Your task to perform on an android device: Open Amazon Image 0: 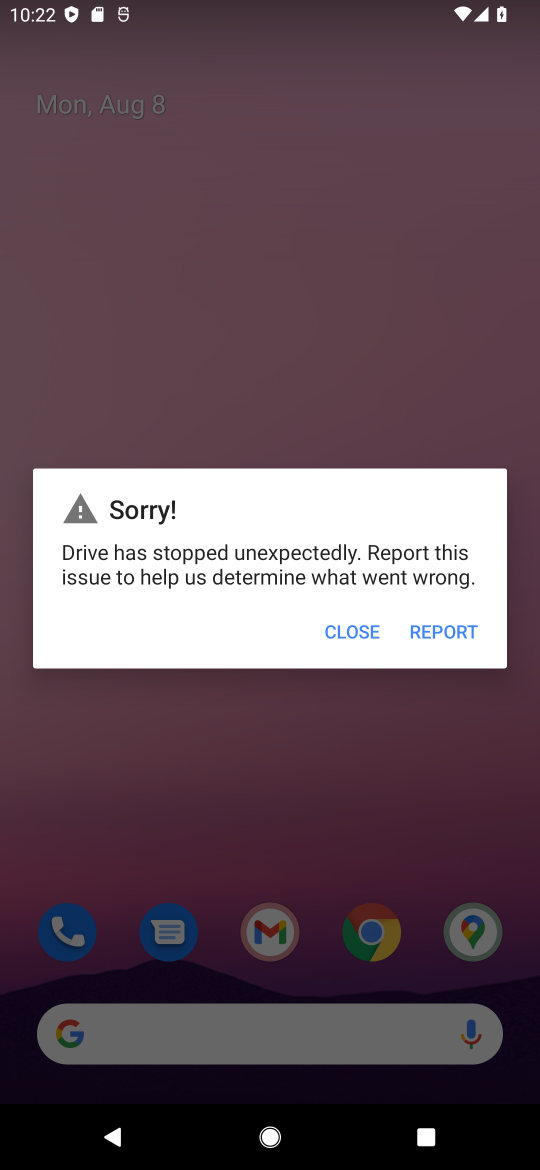
Step 0: click (375, 626)
Your task to perform on an android device: Open Amazon Image 1: 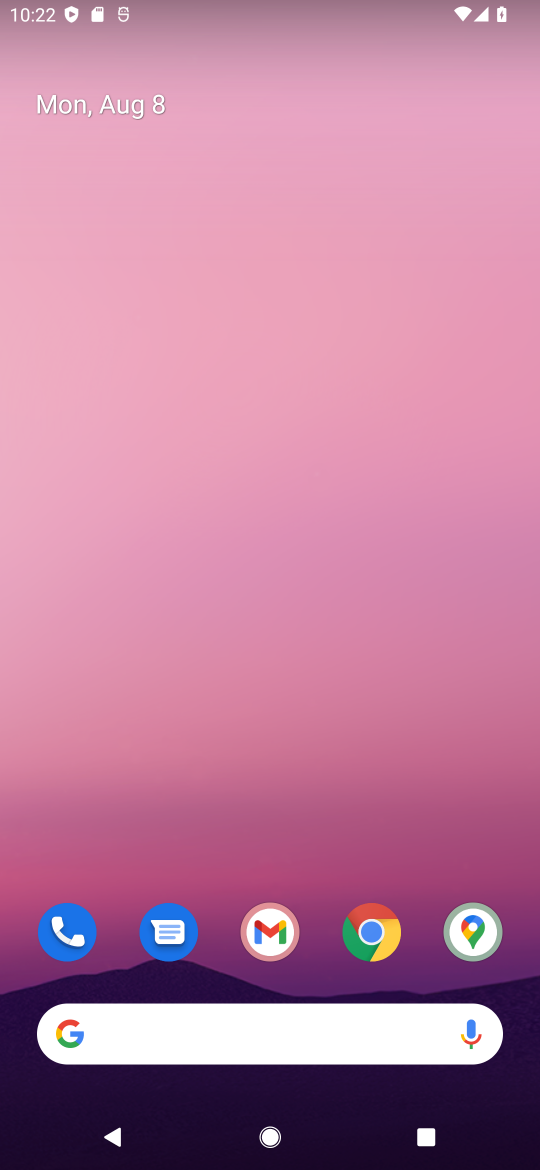
Step 1: click (367, 918)
Your task to perform on an android device: Open Amazon Image 2: 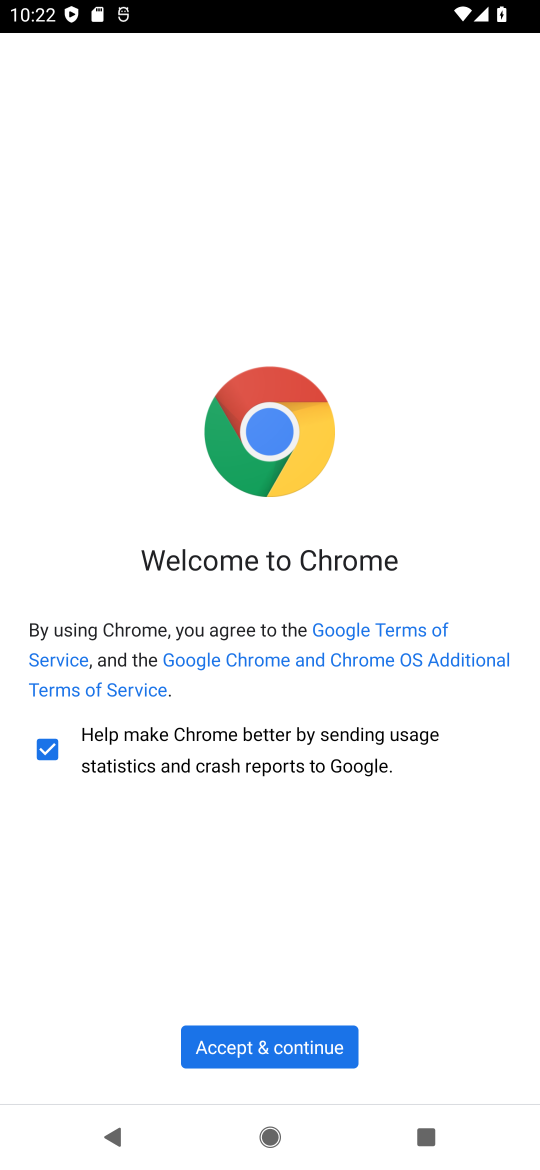
Step 2: click (250, 1059)
Your task to perform on an android device: Open Amazon Image 3: 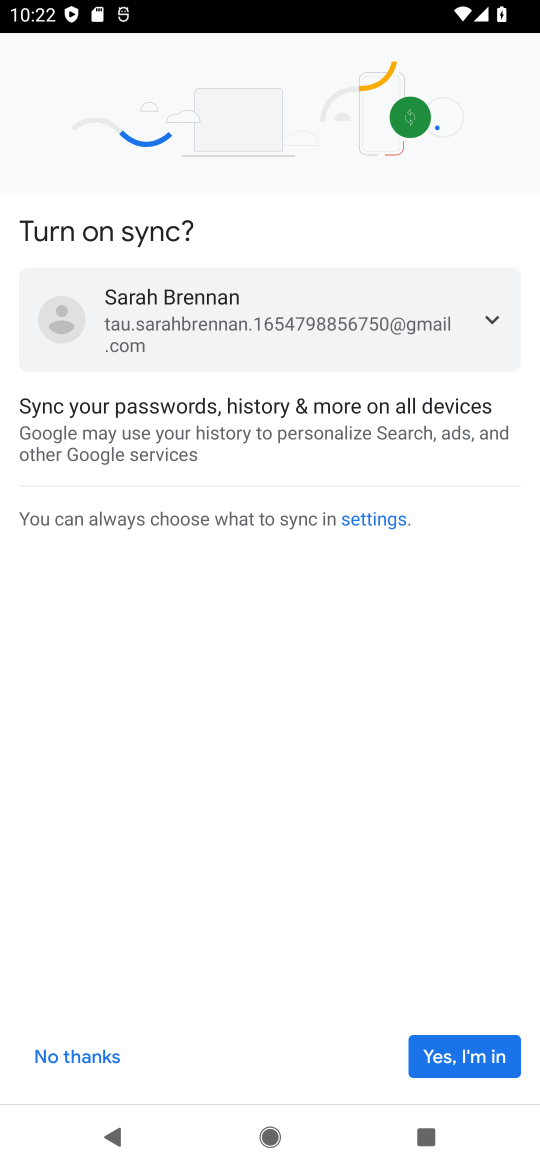
Step 3: click (430, 1051)
Your task to perform on an android device: Open Amazon Image 4: 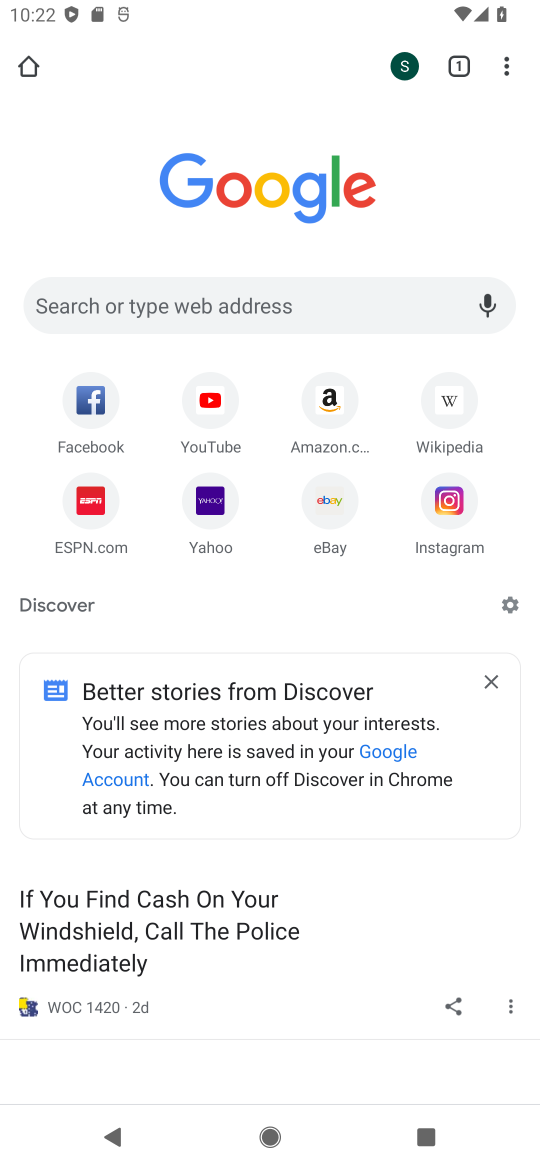
Step 4: click (321, 431)
Your task to perform on an android device: Open Amazon Image 5: 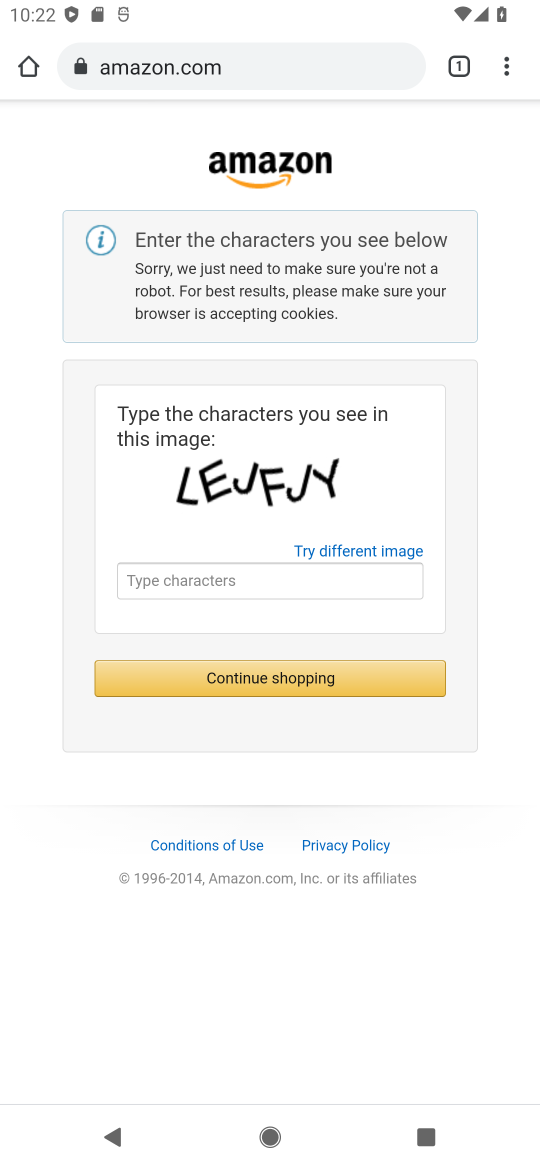
Step 5: click (150, 584)
Your task to perform on an android device: Open Amazon Image 6: 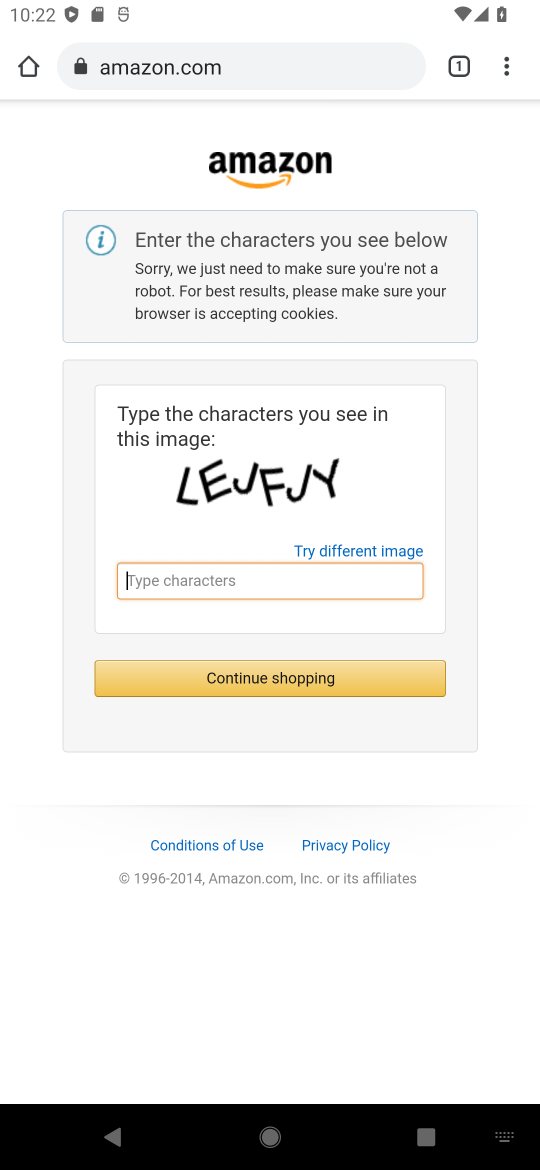
Step 6: type "LEJFJY"
Your task to perform on an android device: Open Amazon Image 7: 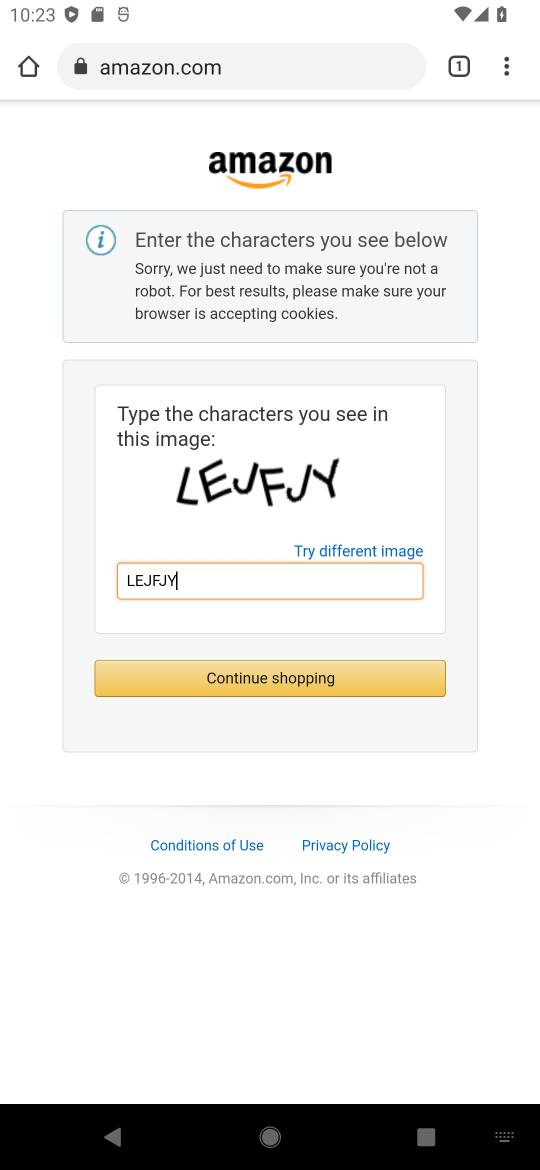
Step 7: click (266, 684)
Your task to perform on an android device: Open Amazon Image 8: 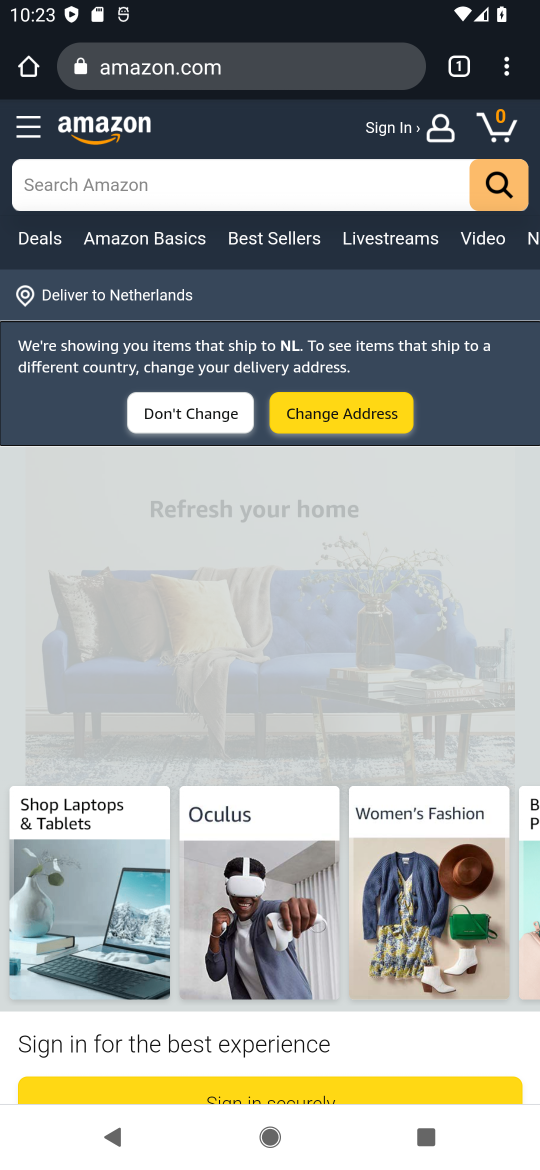
Step 8: task complete